Your task to perform on an android device: Search for sushi restaurants on Maps Image 0: 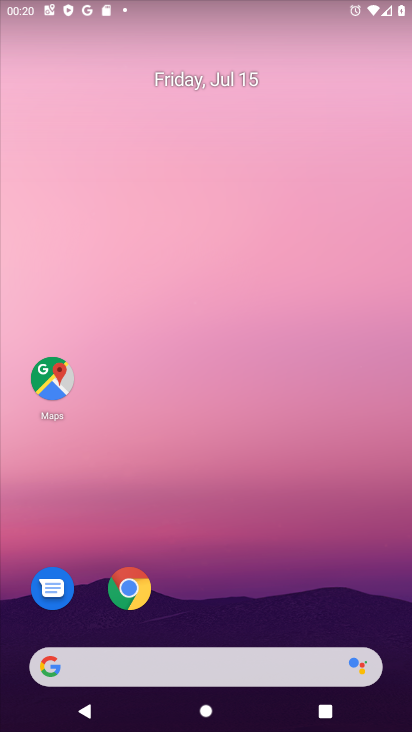
Step 0: click (54, 382)
Your task to perform on an android device: Search for sushi restaurants on Maps Image 1: 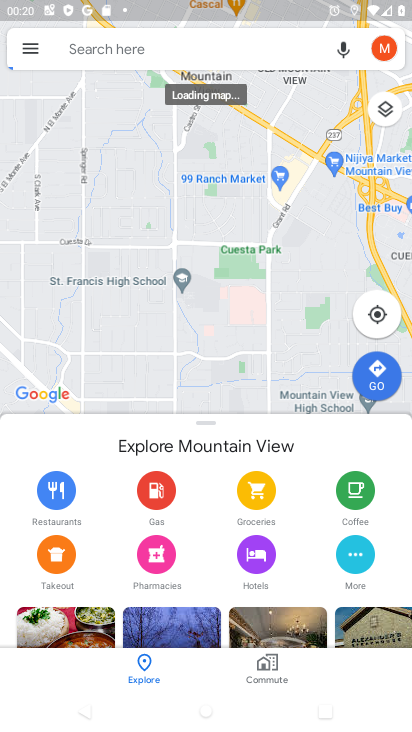
Step 1: click (119, 53)
Your task to perform on an android device: Search for sushi restaurants on Maps Image 2: 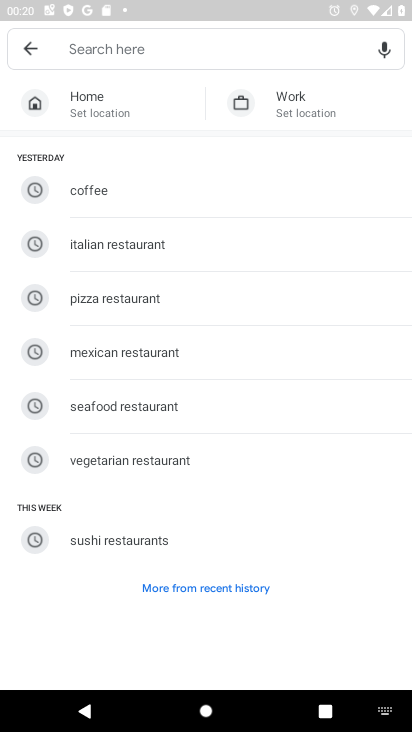
Step 2: click (136, 541)
Your task to perform on an android device: Search for sushi restaurants on Maps Image 3: 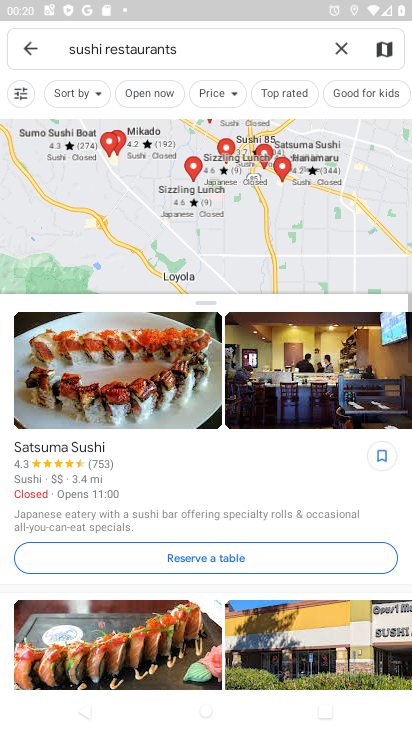
Step 3: task complete